Your task to perform on an android device: check google app version Image 0: 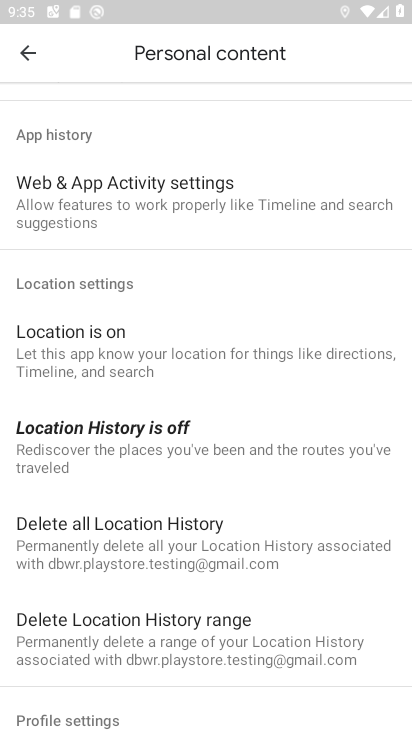
Step 0: press home button
Your task to perform on an android device: check google app version Image 1: 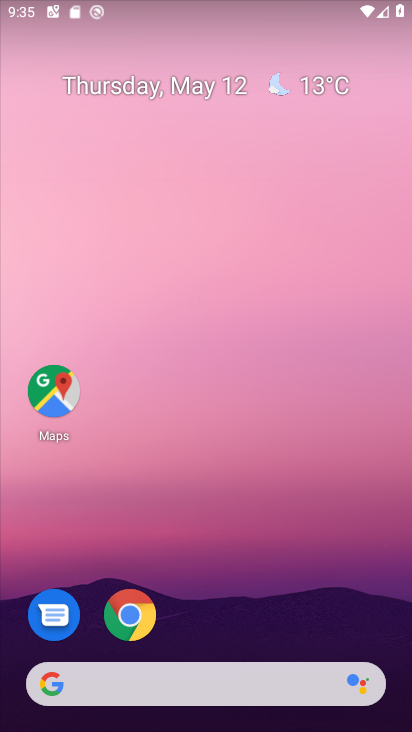
Step 1: drag from (260, 591) to (171, 60)
Your task to perform on an android device: check google app version Image 2: 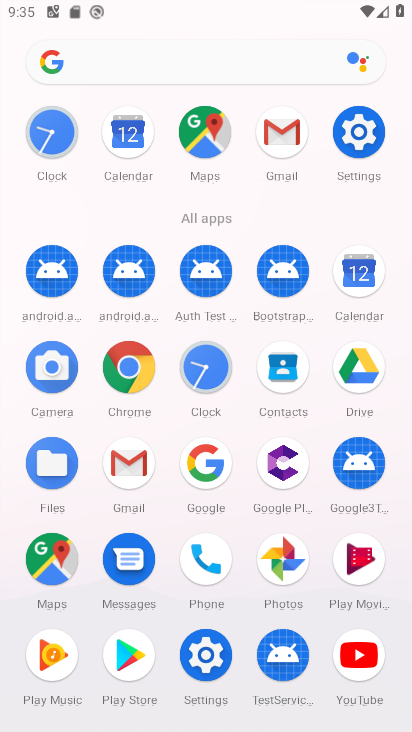
Step 2: click (205, 464)
Your task to perform on an android device: check google app version Image 3: 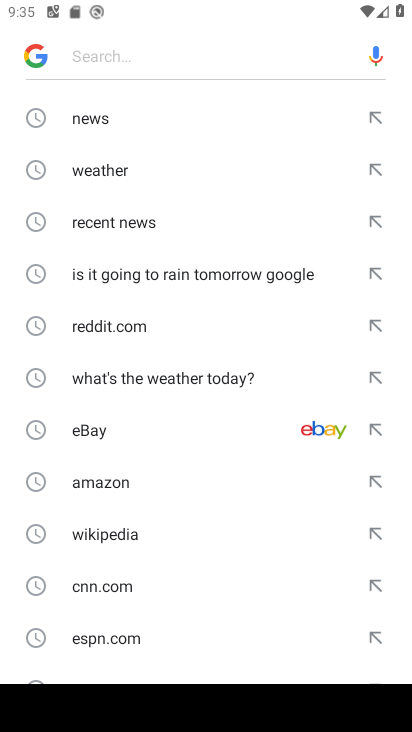
Step 3: click (39, 54)
Your task to perform on an android device: check google app version Image 4: 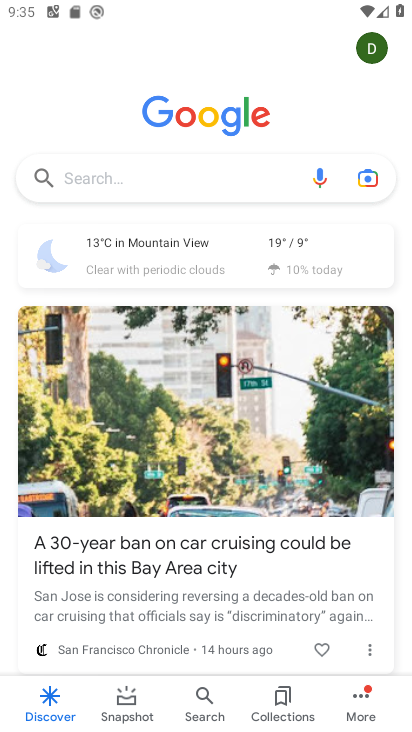
Step 4: click (355, 704)
Your task to perform on an android device: check google app version Image 5: 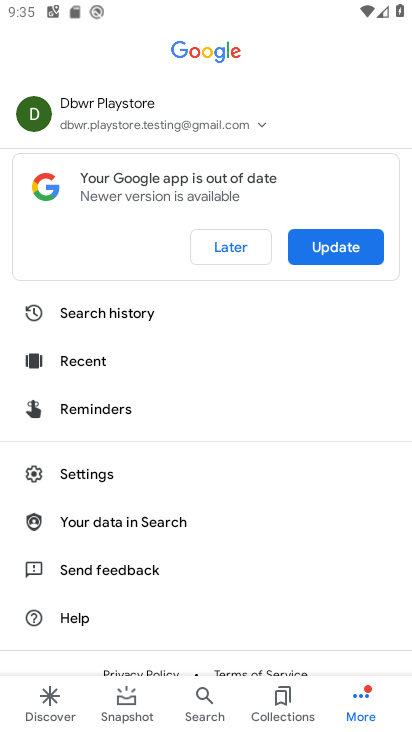
Step 5: drag from (259, 508) to (141, 119)
Your task to perform on an android device: check google app version Image 6: 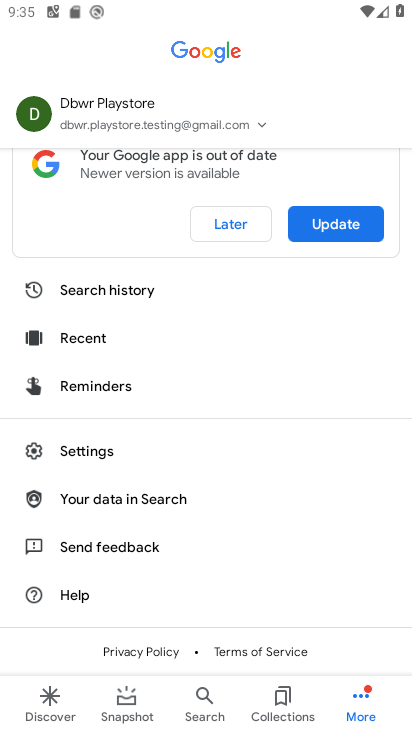
Step 6: click (86, 452)
Your task to perform on an android device: check google app version Image 7: 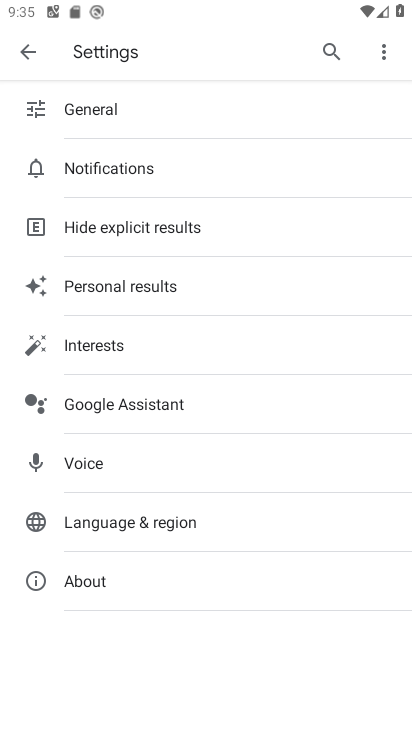
Step 7: drag from (253, 530) to (218, 271)
Your task to perform on an android device: check google app version Image 8: 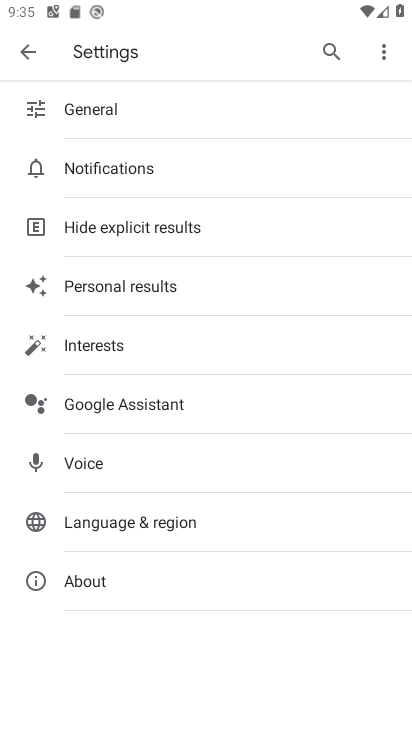
Step 8: click (81, 578)
Your task to perform on an android device: check google app version Image 9: 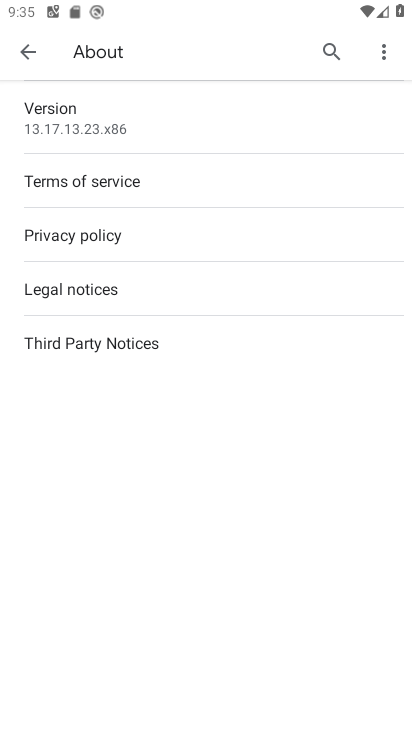
Step 9: task complete